Your task to perform on an android device: Open Yahoo.com Image 0: 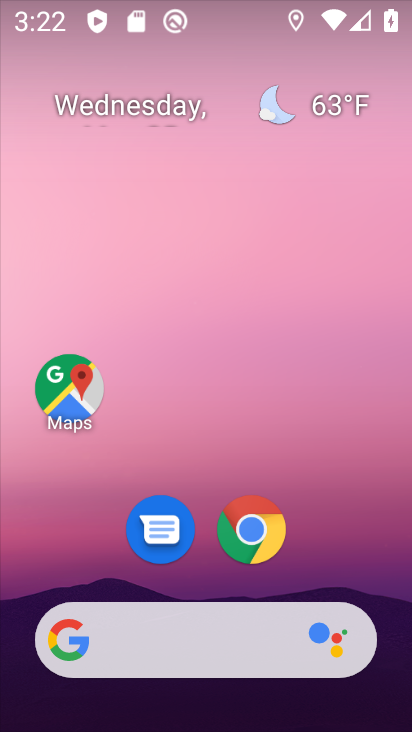
Step 0: click (254, 552)
Your task to perform on an android device: Open Yahoo.com Image 1: 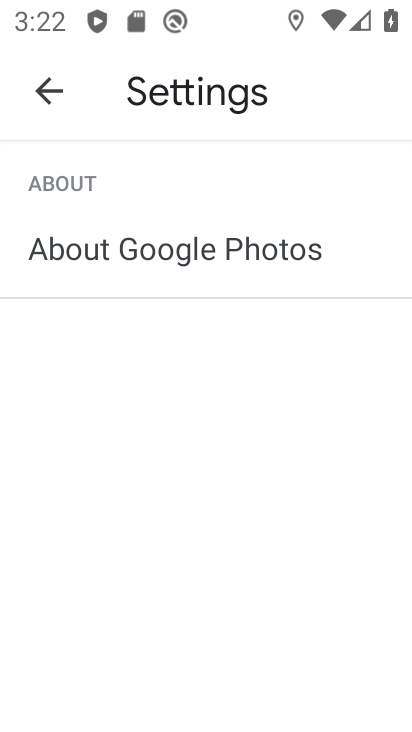
Step 1: click (258, 537)
Your task to perform on an android device: Open Yahoo.com Image 2: 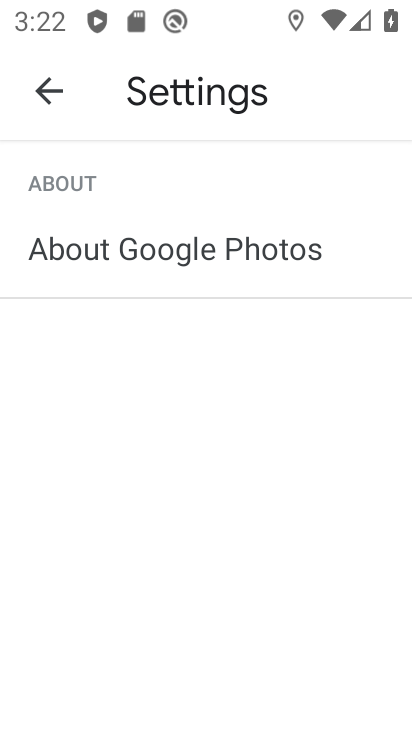
Step 2: press back button
Your task to perform on an android device: Open Yahoo.com Image 3: 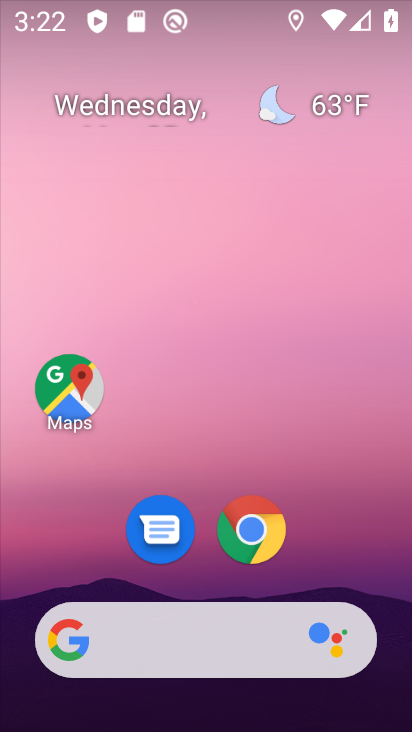
Step 3: click (231, 535)
Your task to perform on an android device: Open Yahoo.com Image 4: 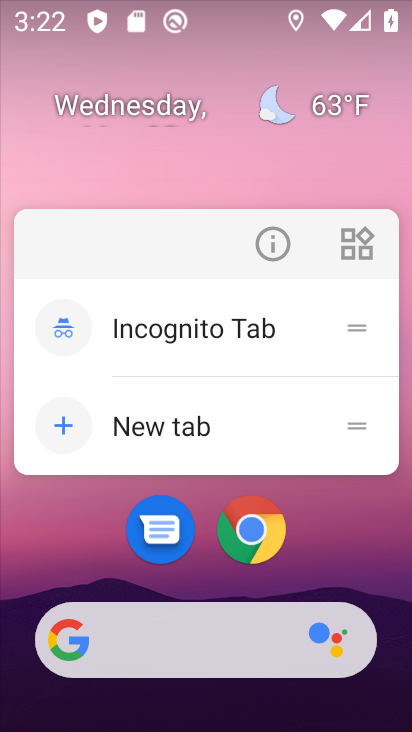
Step 4: click (247, 539)
Your task to perform on an android device: Open Yahoo.com Image 5: 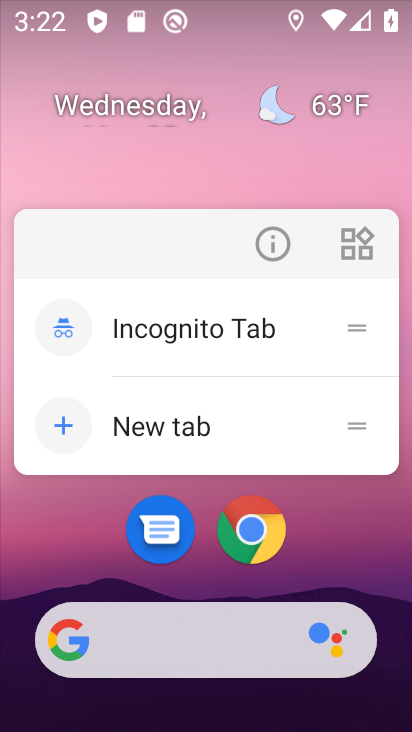
Step 5: click (258, 537)
Your task to perform on an android device: Open Yahoo.com Image 6: 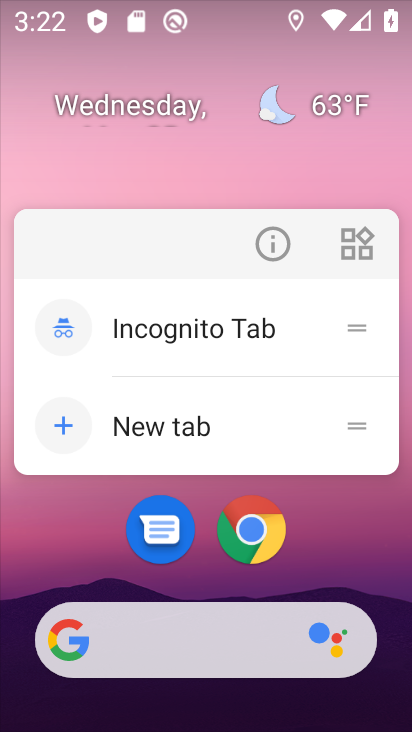
Step 6: click (263, 522)
Your task to perform on an android device: Open Yahoo.com Image 7: 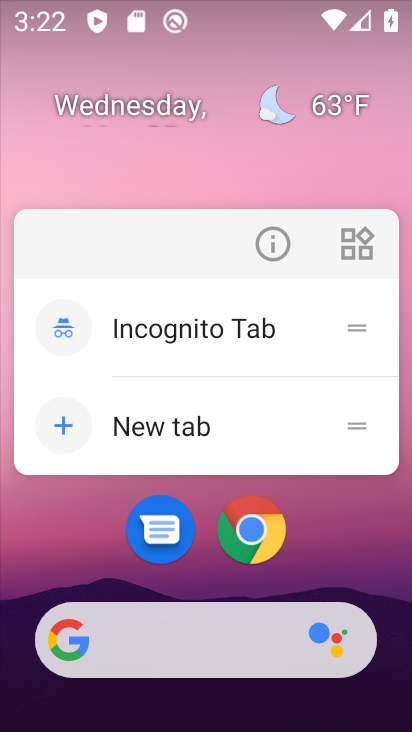
Step 7: click (257, 537)
Your task to perform on an android device: Open Yahoo.com Image 8: 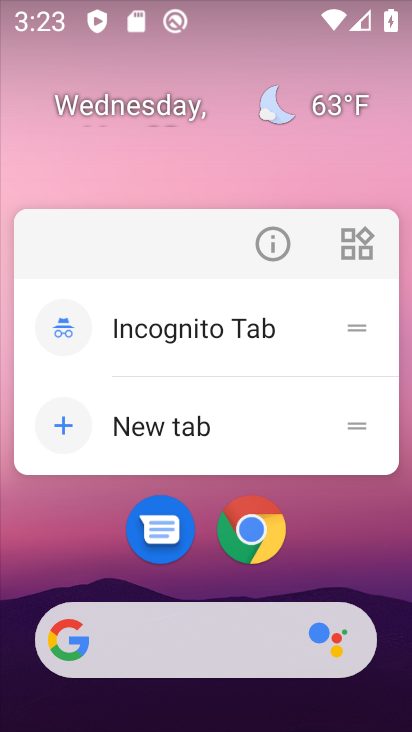
Step 8: click (274, 545)
Your task to perform on an android device: Open Yahoo.com Image 9: 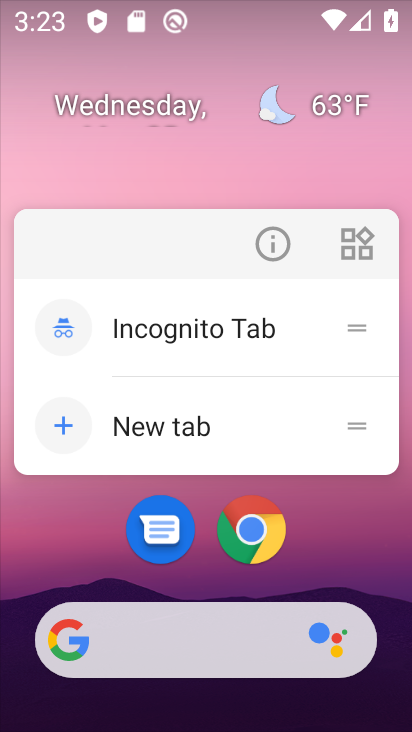
Step 9: click (271, 532)
Your task to perform on an android device: Open Yahoo.com Image 10: 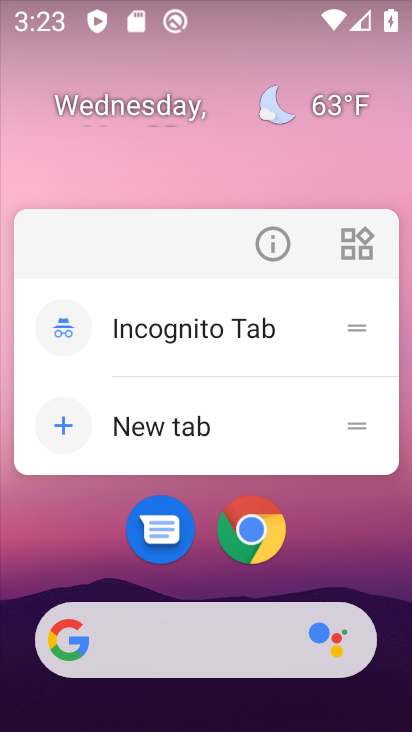
Step 10: click (269, 532)
Your task to perform on an android device: Open Yahoo.com Image 11: 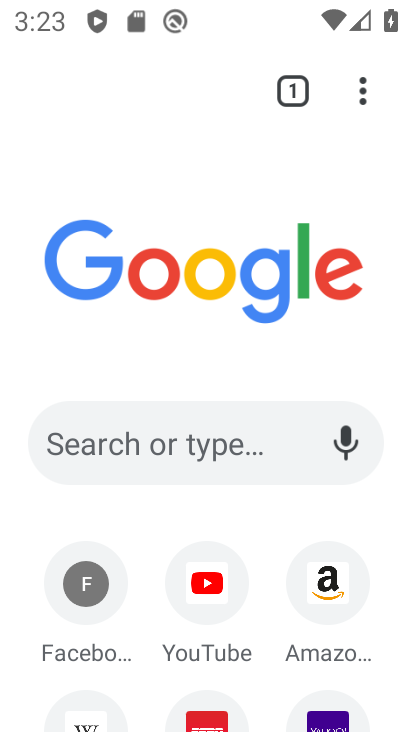
Step 11: click (332, 714)
Your task to perform on an android device: Open Yahoo.com Image 12: 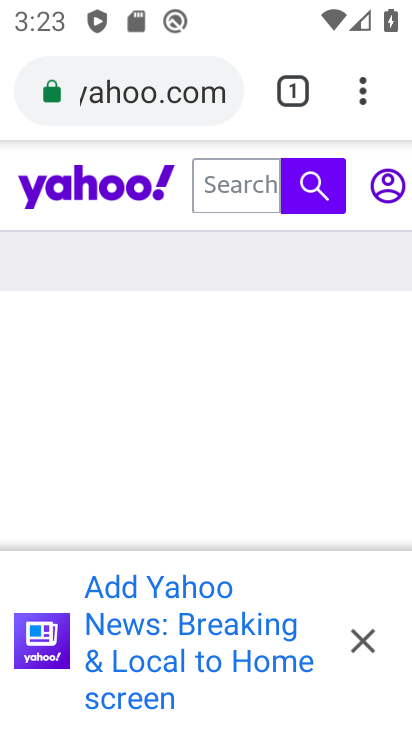
Step 12: click (357, 628)
Your task to perform on an android device: Open Yahoo.com Image 13: 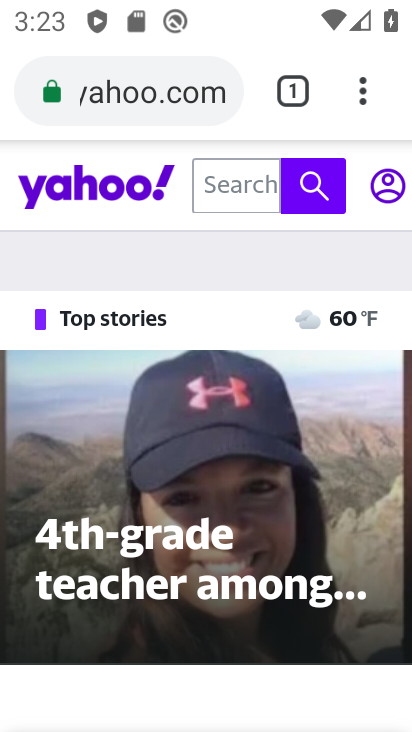
Step 13: task complete